Your task to perform on an android device: toggle show notifications on the lock screen Image 0: 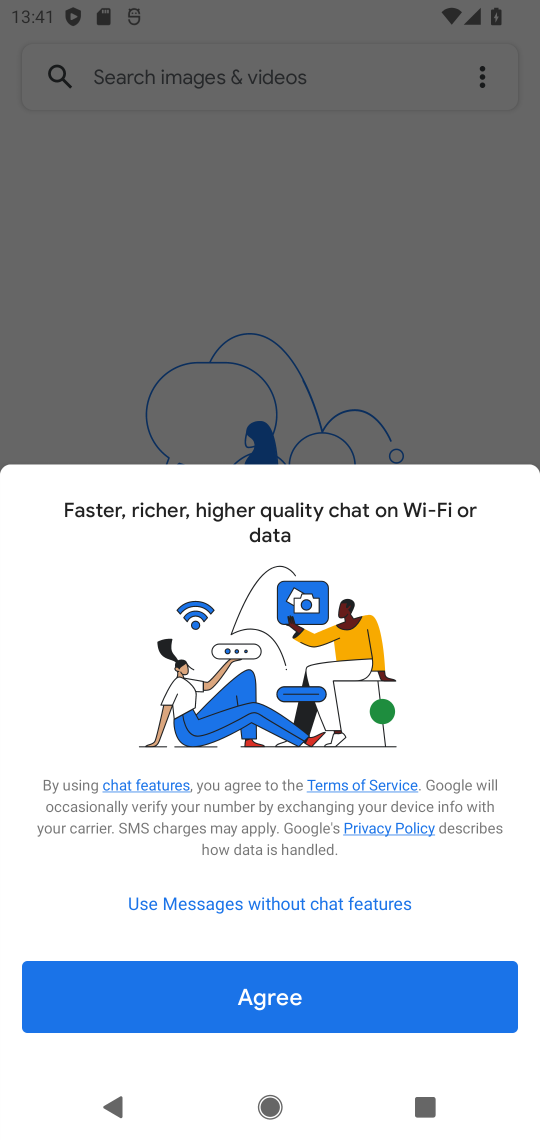
Step 0: press home button
Your task to perform on an android device: toggle show notifications on the lock screen Image 1: 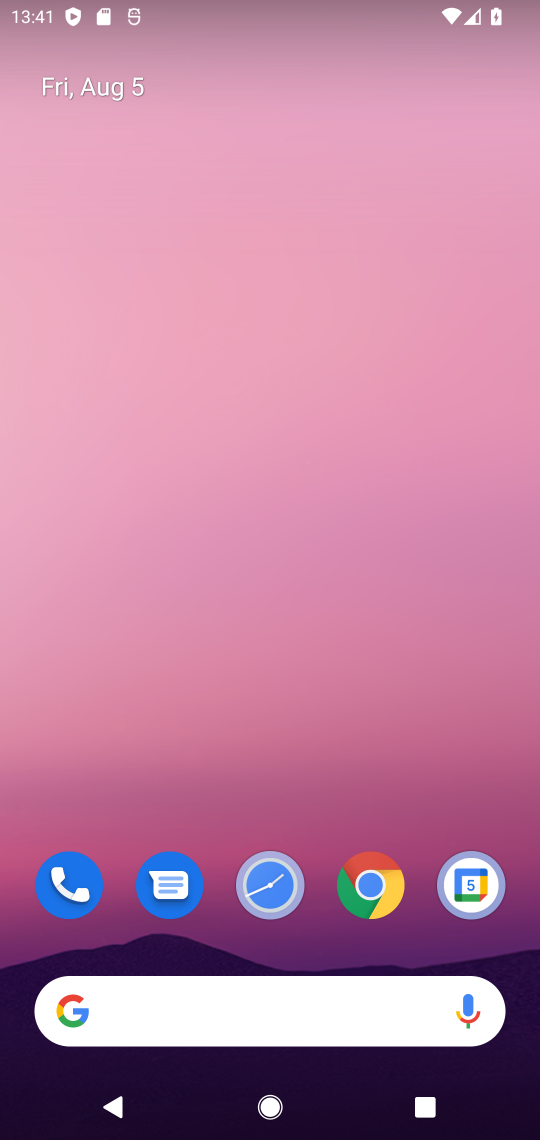
Step 1: drag from (276, 731) to (316, 143)
Your task to perform on an android device: toggle show notifications on the lock screen Image 2: 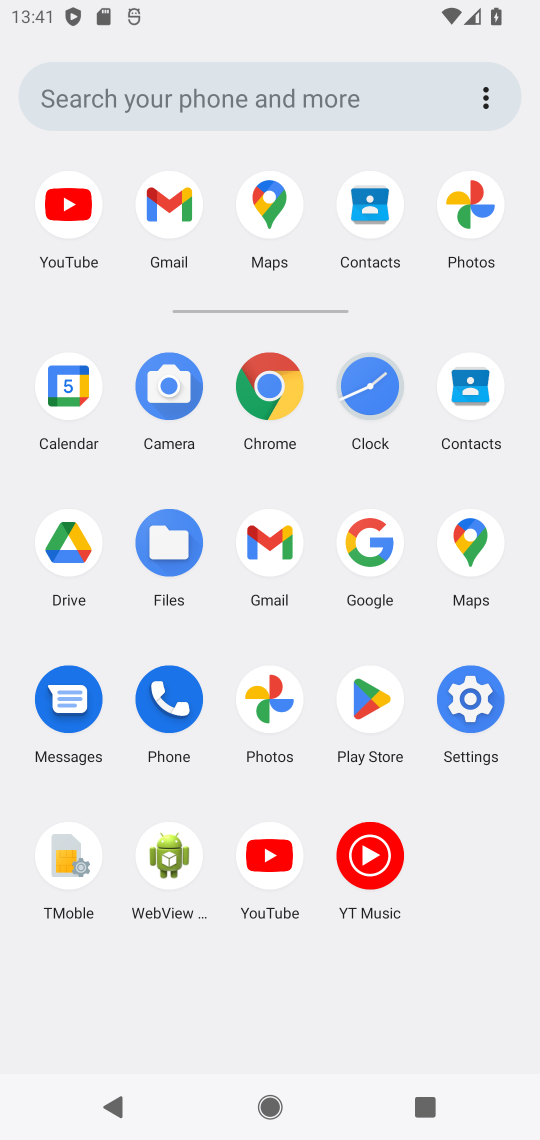
Step 2: click (468, 713)
Your task to perform on an android device: toggle show notifications on the lock screen Image 3: 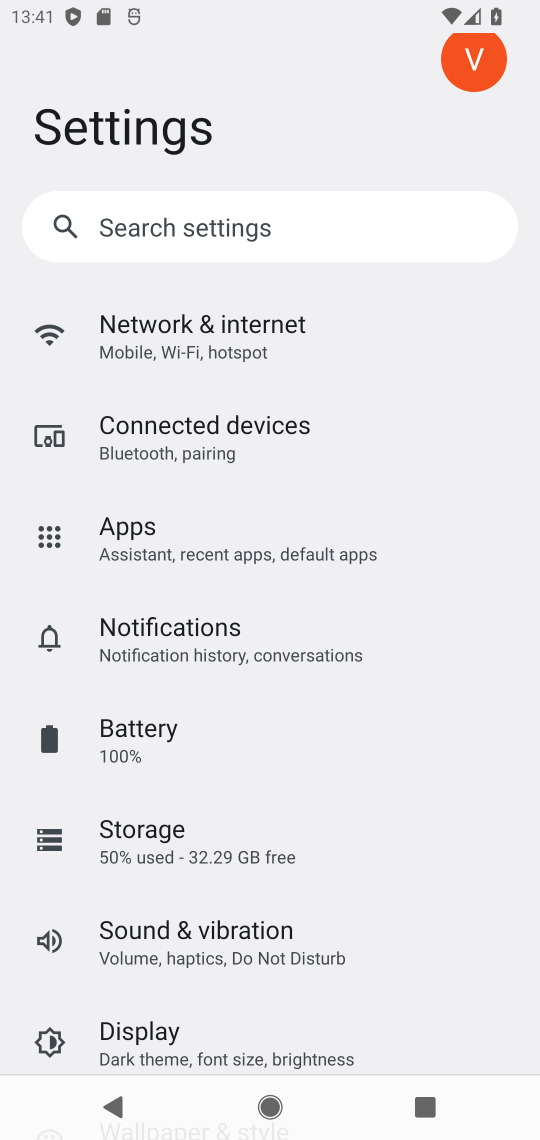
Step 3: click (199, 638)
Your task to perform on an android device: toggle show notifications on the lock screen Image 4: 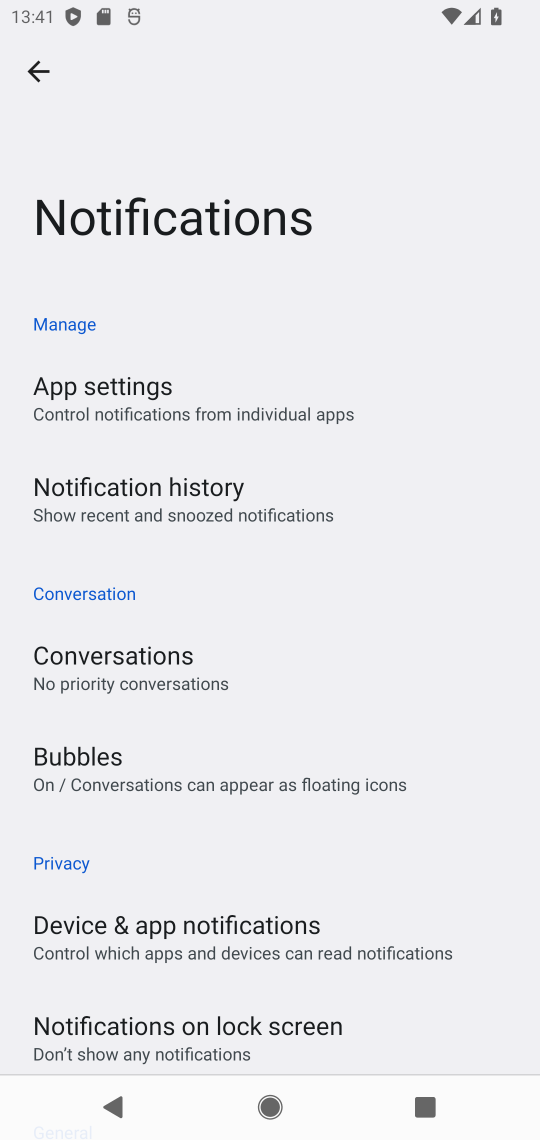
Step 4: click (229, 1016)
Your task to perform on an android device: toggle show notifications on the lock screen Image 5: 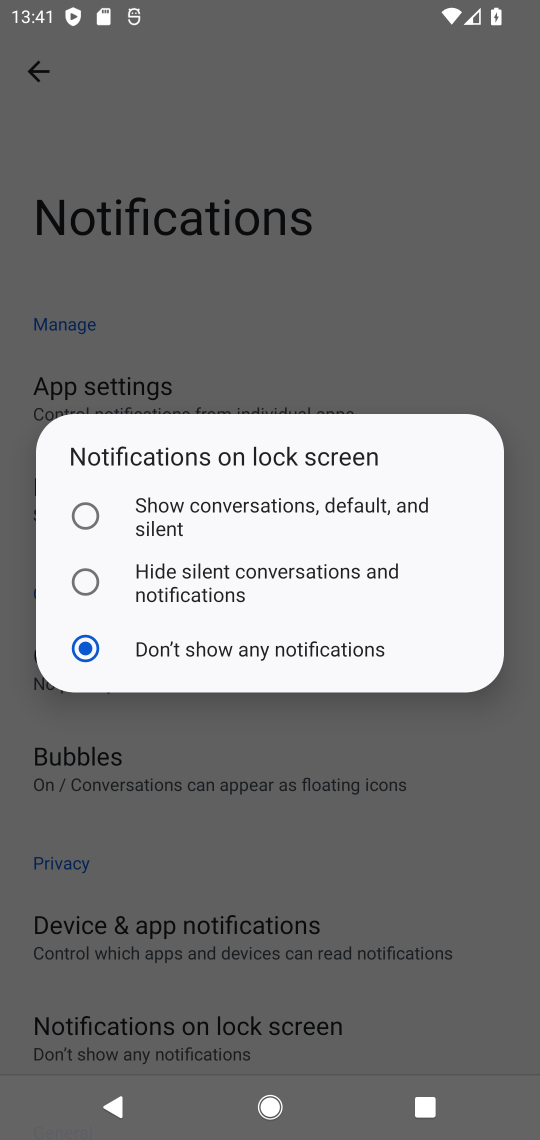
Step 5: click (78, 517)
Your task to perform on an android device: toggle show notifications on the lock screen Image 6: 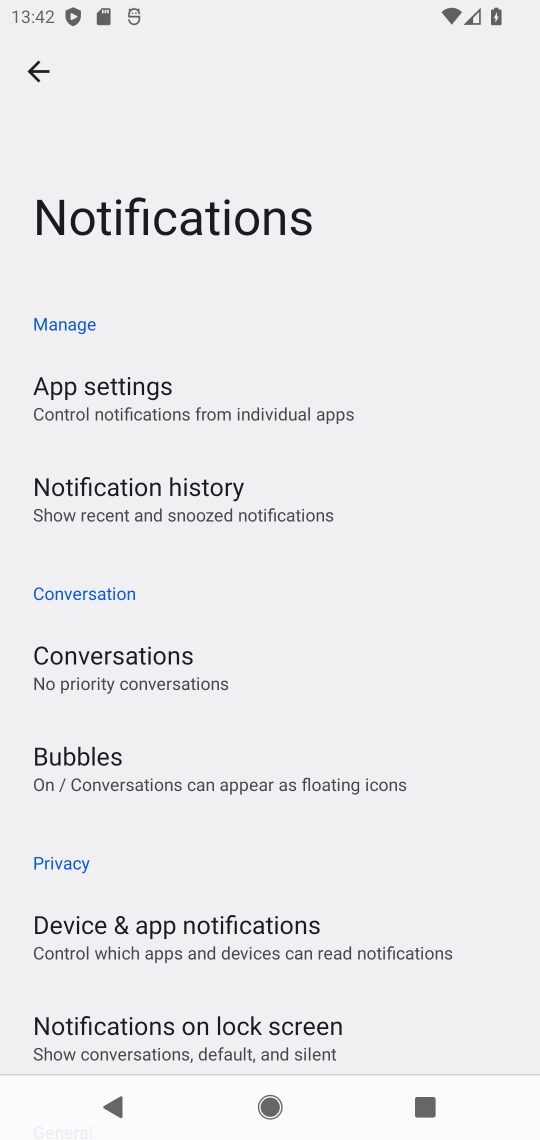
Step 6: task complete